Your task to perform on an android device: Show the shopping cart on walmart.com. Add alienware area 51 to the cart on walmart.com Image 0: 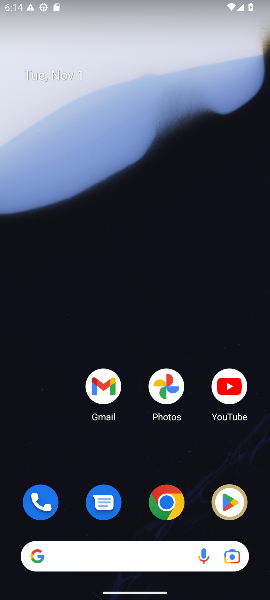
Step 0: click (170, 502)
Your task to perform on an android device: Show the shopping cart on walmart.com. Add alienware area 51 to the cart on walmart.com Image 1: 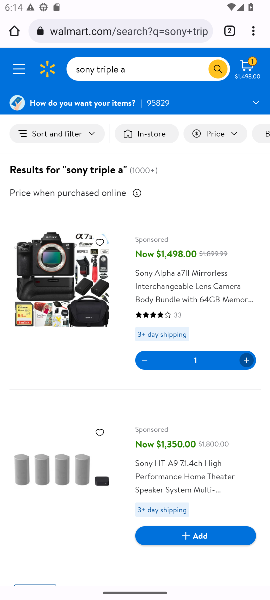
Step 1: click (16, 26)
Your task to perform on an android device: Show the shopping cart on walmart.com. Add alienware area 51 to the cart on walmart.com Image 2: 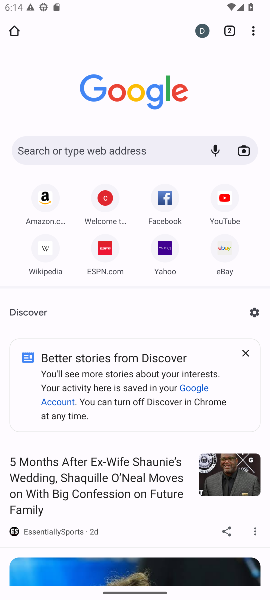
Step 2: click (84, 156)
Your task to perform on an android device: Show the shopping cart on walmart.com. Add alienware area 51 to the cart on walmart.com Image 3: 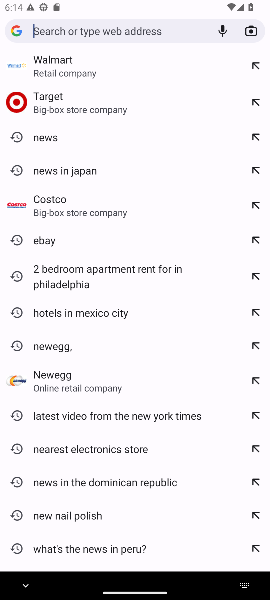
Step 3: click (63, 53)
Your task to perform on an android device: Show the shopping cart on walmart.com. Add alienware area 51 to the cart on walmart.com Image 4: 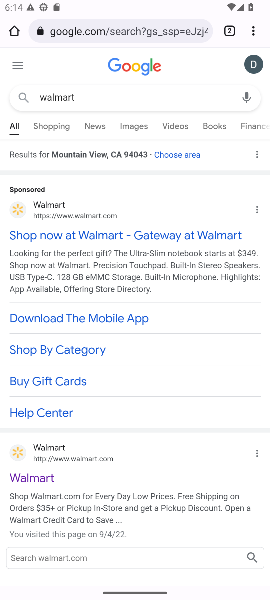
Step 4: click (56, 209)
Your task to perform on an android device: Show the shopping cart on walmart.com. Add alienware area 51 to the cart on walmart.com Image 5: 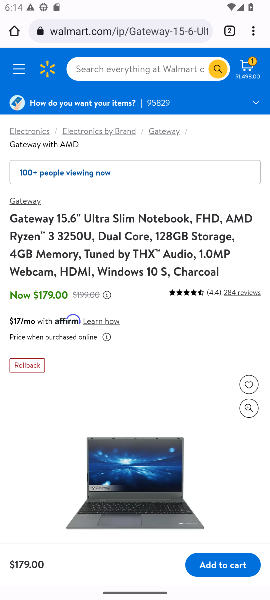
Step 5: click (129, 68)
Your task to perform on an android device: Show the shopping cart on walmart.com. Add alienware area 51 to the cart on walmart.com Image 6: 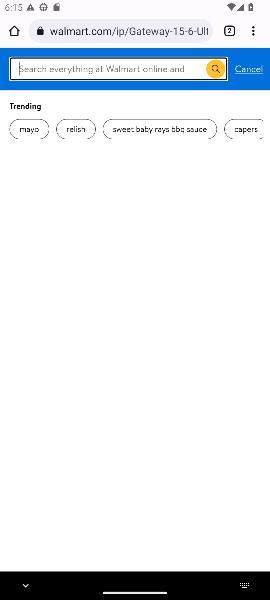
Step 6: type "alienware area 51"
Your task to perform on an android device: Show the shopping cart on walmart.com. Add alienware area 51 to the cart on walmart.com Image 7: 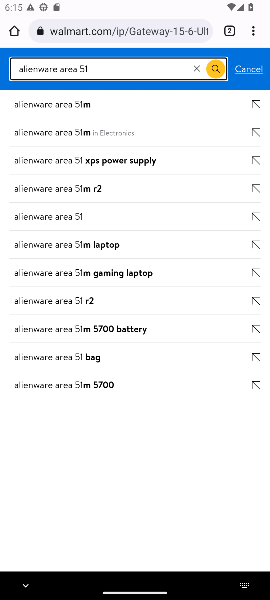
Step 7: click (213, 68)
Your task to perform on an android device: Show the shopping cart on walmart.com. Add alienware area 51 to the cart on walmart.com Image 8: 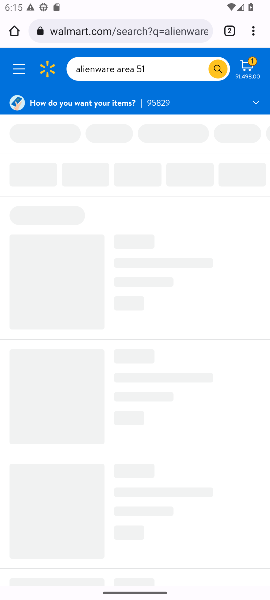
Step 8: click (218, 69)
Your task to perform on an android device: Show the shopping cart on walmart.com. Add alienware area 51 to the cart on walmart.com Image 9: 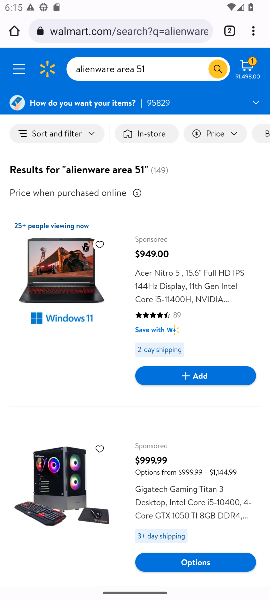
Step 9: click (187, 376)
Your task to perform on an android device: Show the shopping cart on walmart.com. Add alienware area 51 to the cart on walmart.com Image 10: 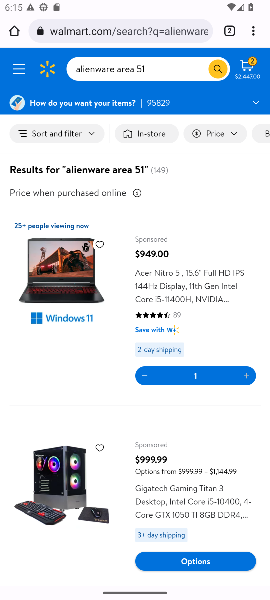
Step 10: task complete